Your task to perform on an android device: Open Amazon Image 0: 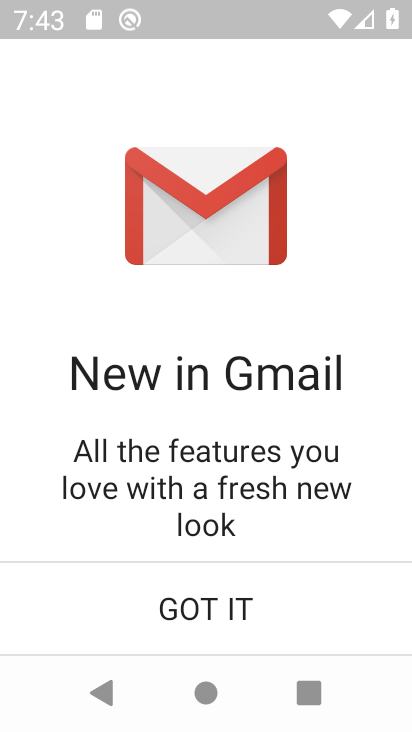
Step 0: press home button
Your task to perform on an android device: Open Amazon Image 1: 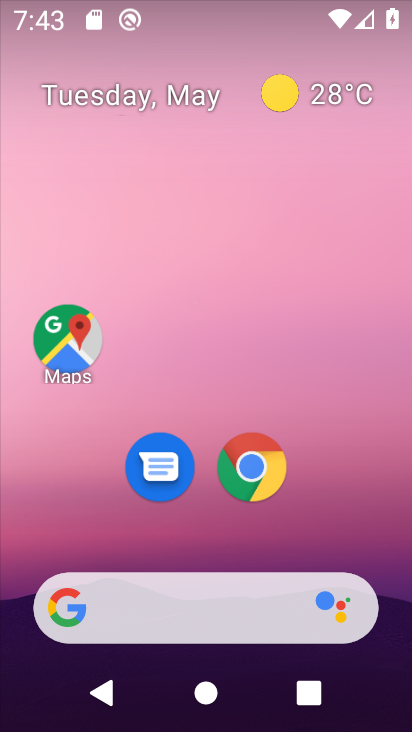
Step 1: click (251, 475)
Your task to perform on an android device: Open Amazon Image 2: 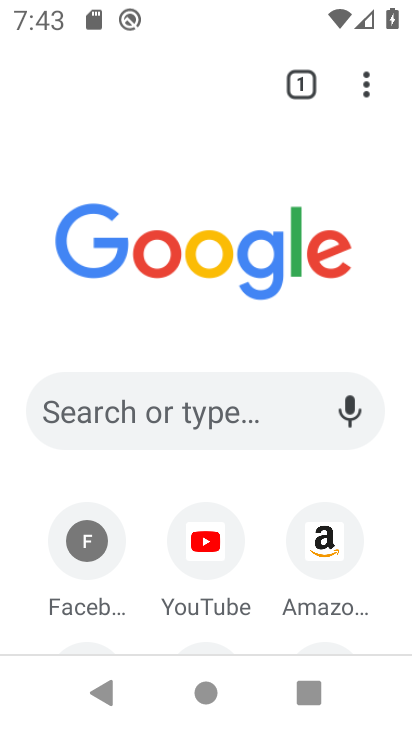
Step 2: click (314, 540)
Your task to perform on an android device: Open Amazon Image 3: 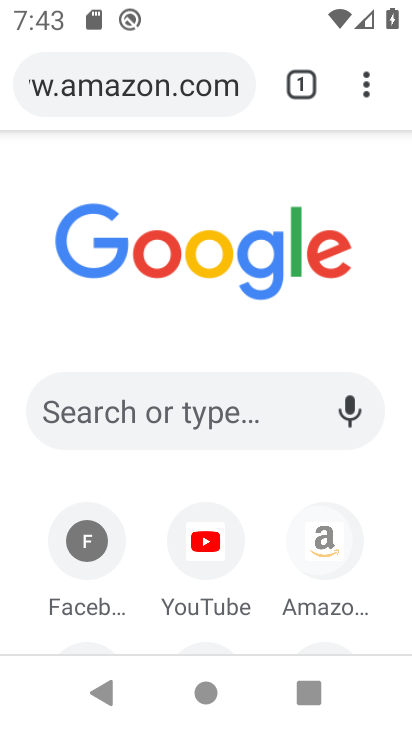
Step 3: click (322, 544)
Your task to perform on an android device: Open Amazon Image 4: 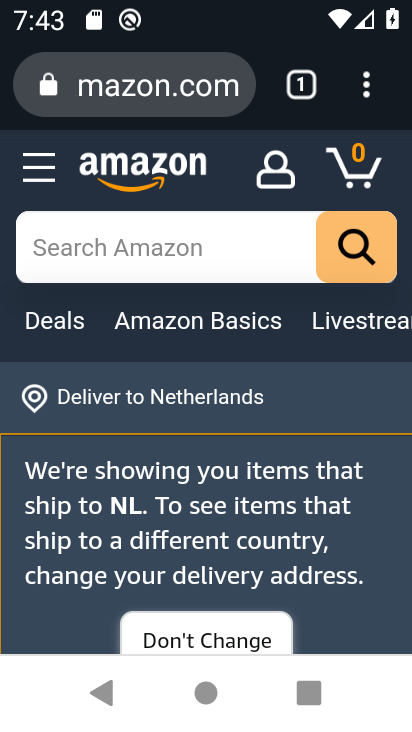
Step 4: task complete